Your task to perform on an android device: How do I get to the nearest Nordstrom? Image 0: 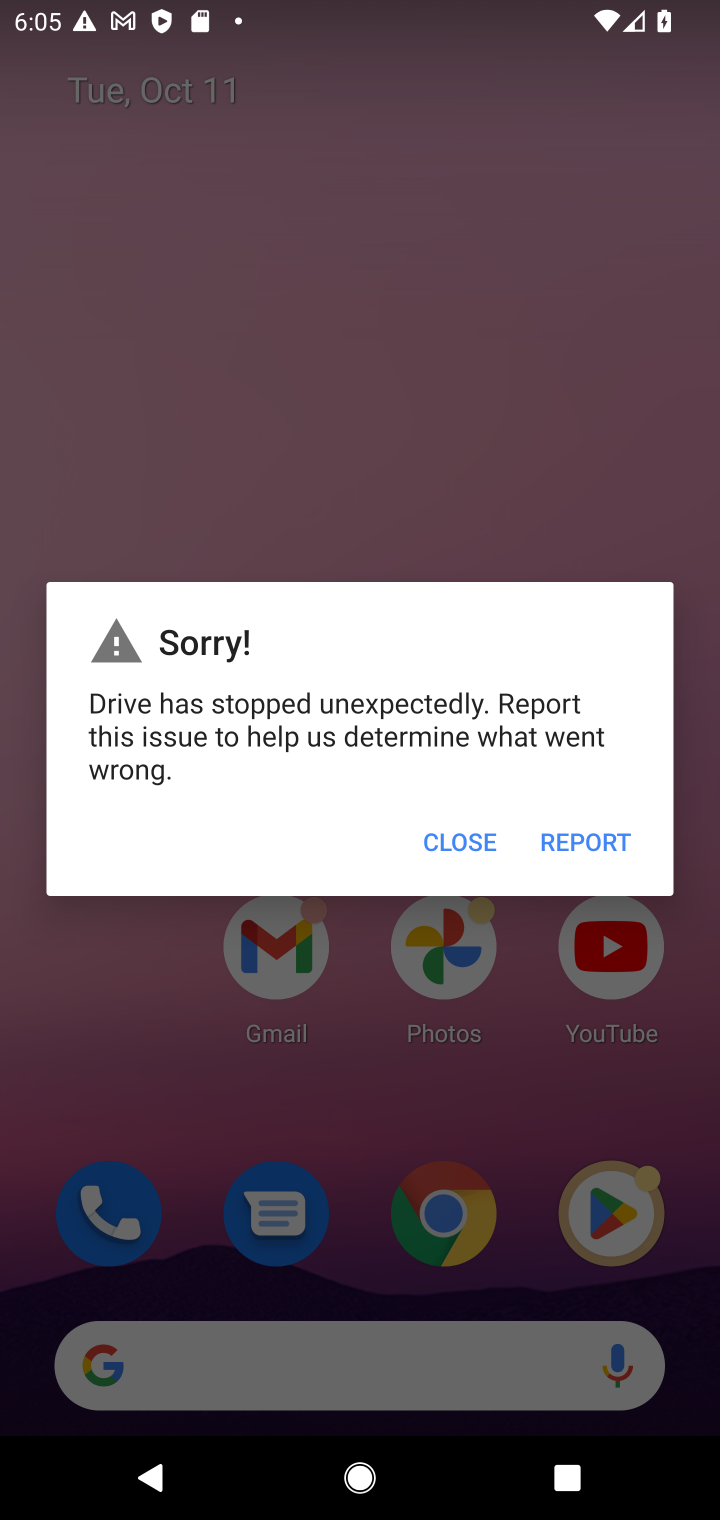
Step 0: click (217, 1378)
Your task to perform on an android device: How do I get to the nearest Nordstrom? Image 1: 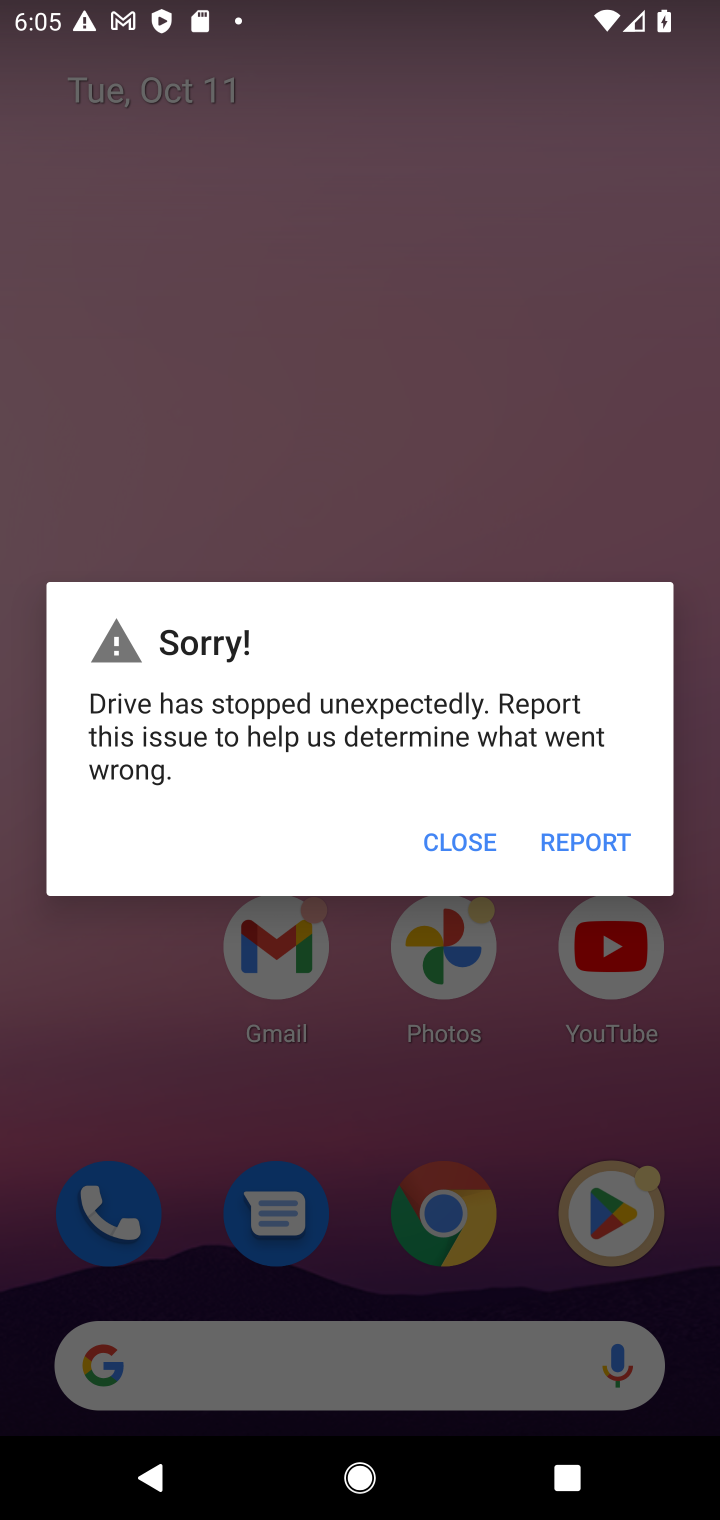
Step 1: click (485, 840)
Your task to perform on an android device: How do I get to the nearest Nordstrom? Image 2: 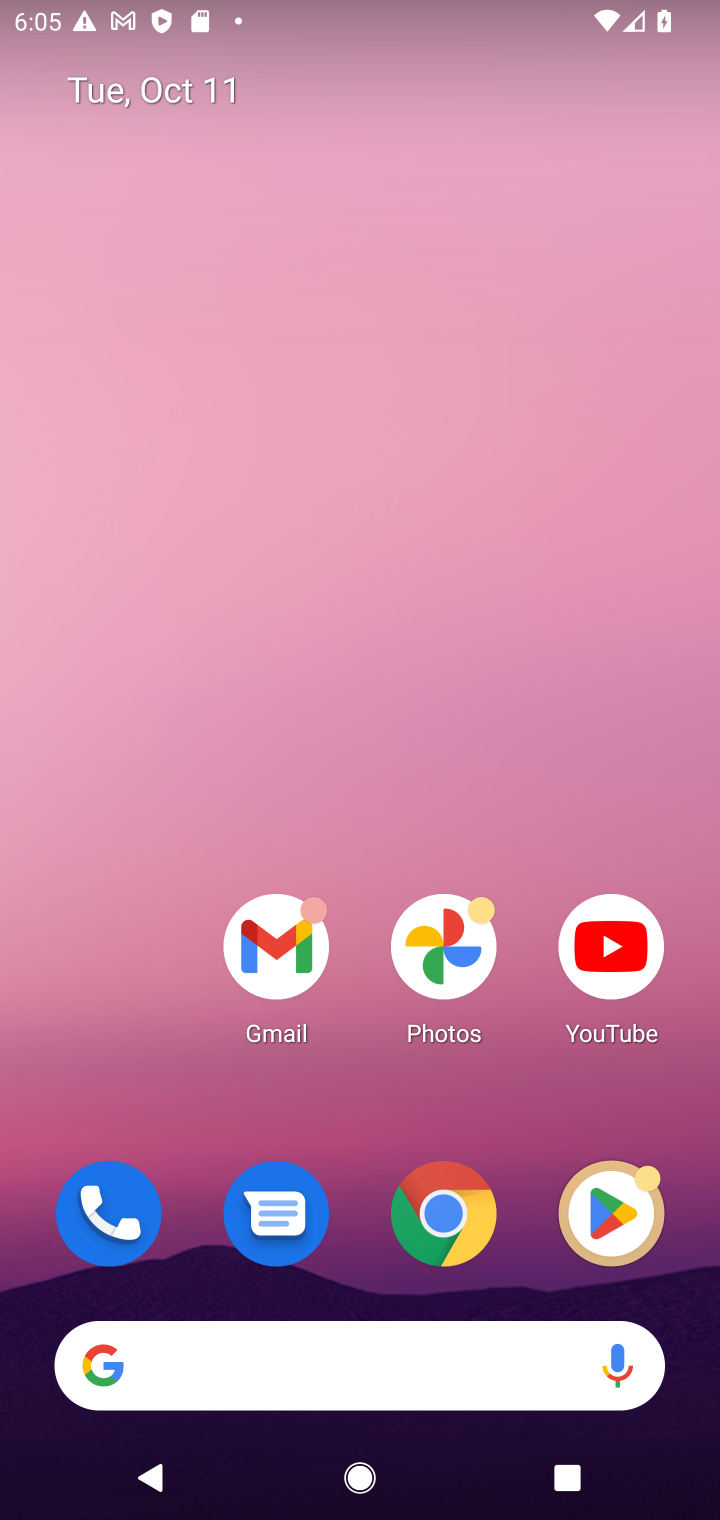
Step 2: click (317, 1381)
Your task to perform on an android device: How do I get to the nearest Nordstrom? Image 3: 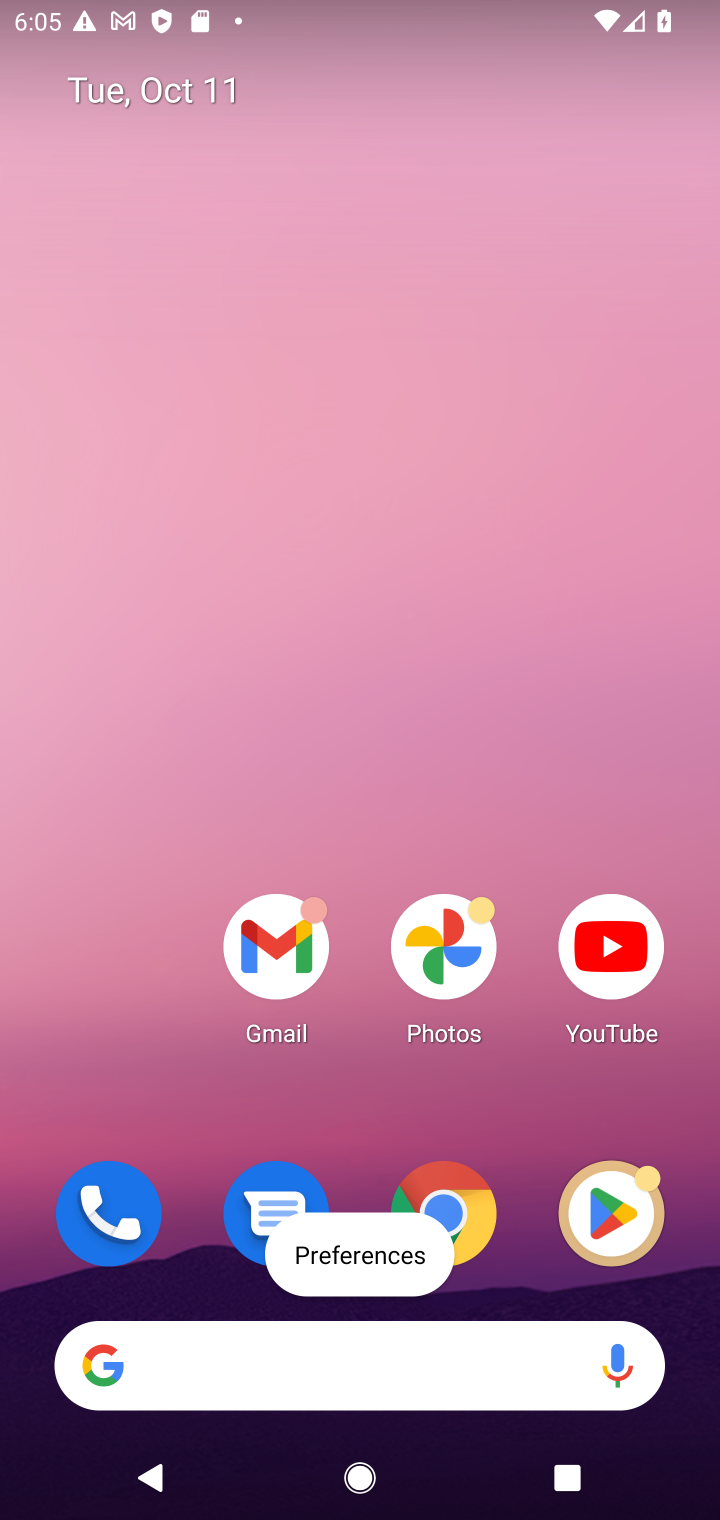
Step 3: click (157, 1368)
Your task to perform on an android device: How do I get to the nearest Nordstrom? Image 4: 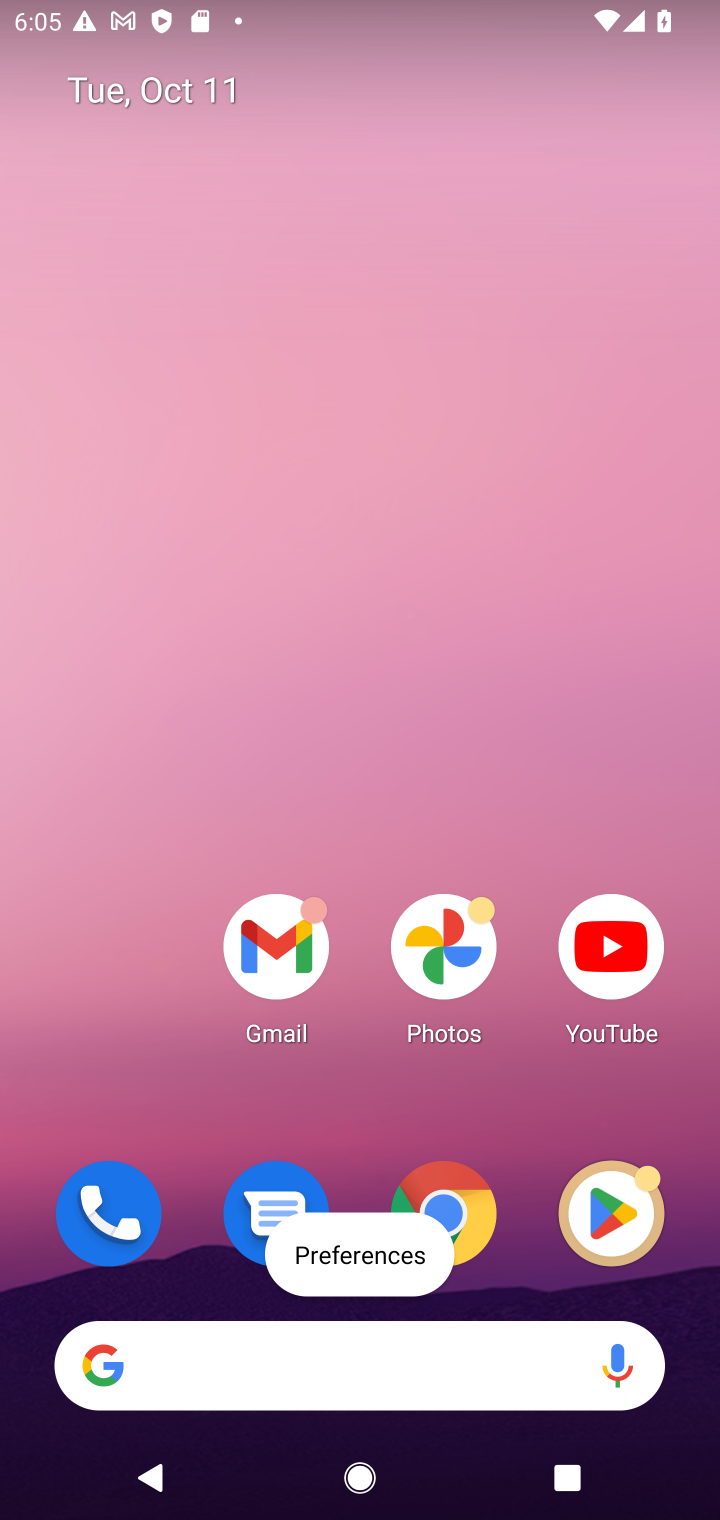
Step 4: click (156, 1359)
Your task to perform on an android device: How do I get to the nearest Nordstrom? Image 5: 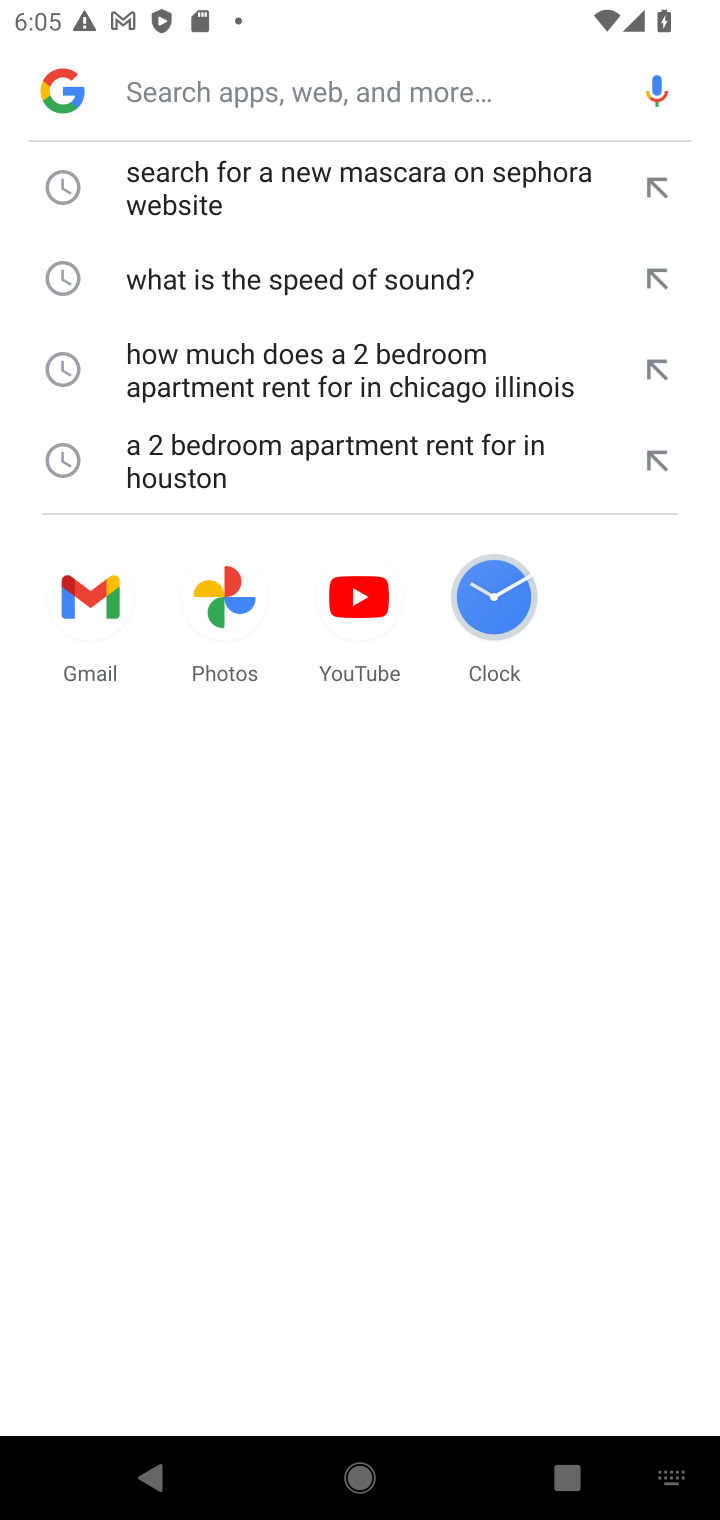
Step 5: type "How do I get to the nearest Nordstrom?"
Your task to perform on an android device: How do I get to the nearest Nordstrom? Image 6: 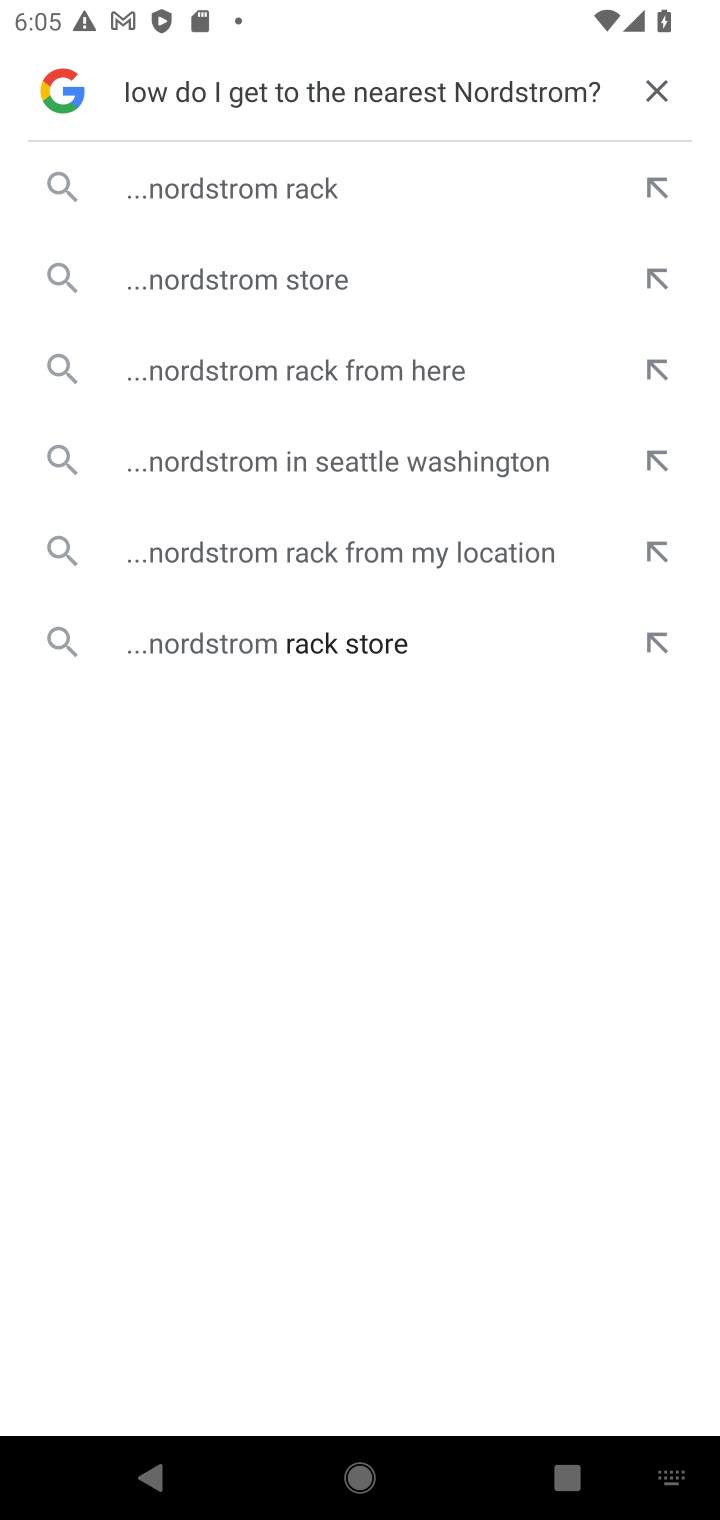
Step 6: click (249, 196)
Your task to perform on an android device: How do I get to the nearest Nordstrom? Image 7: 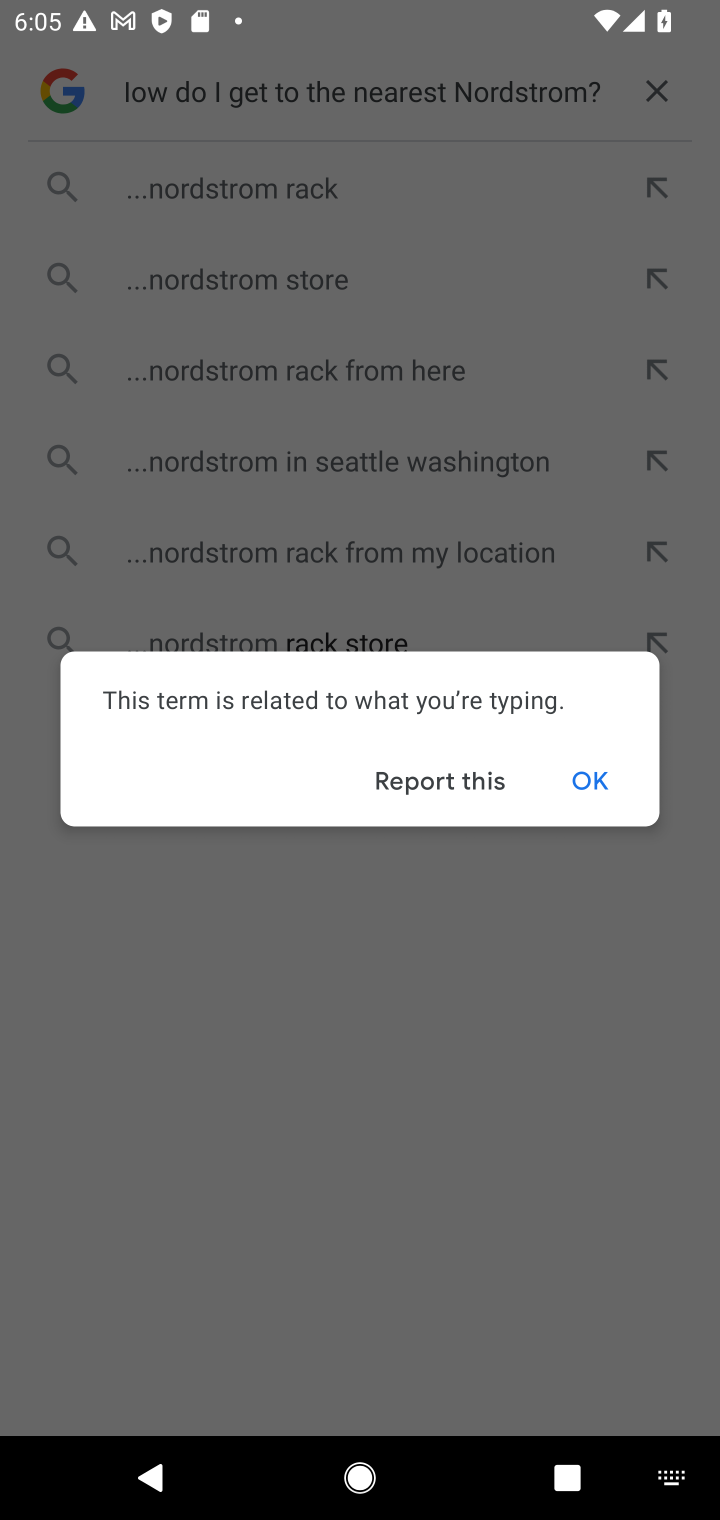
Step 7: click (457, 852)
Your task to perform on an android device: How do I get to the nearest Nordstrom? Image 8: 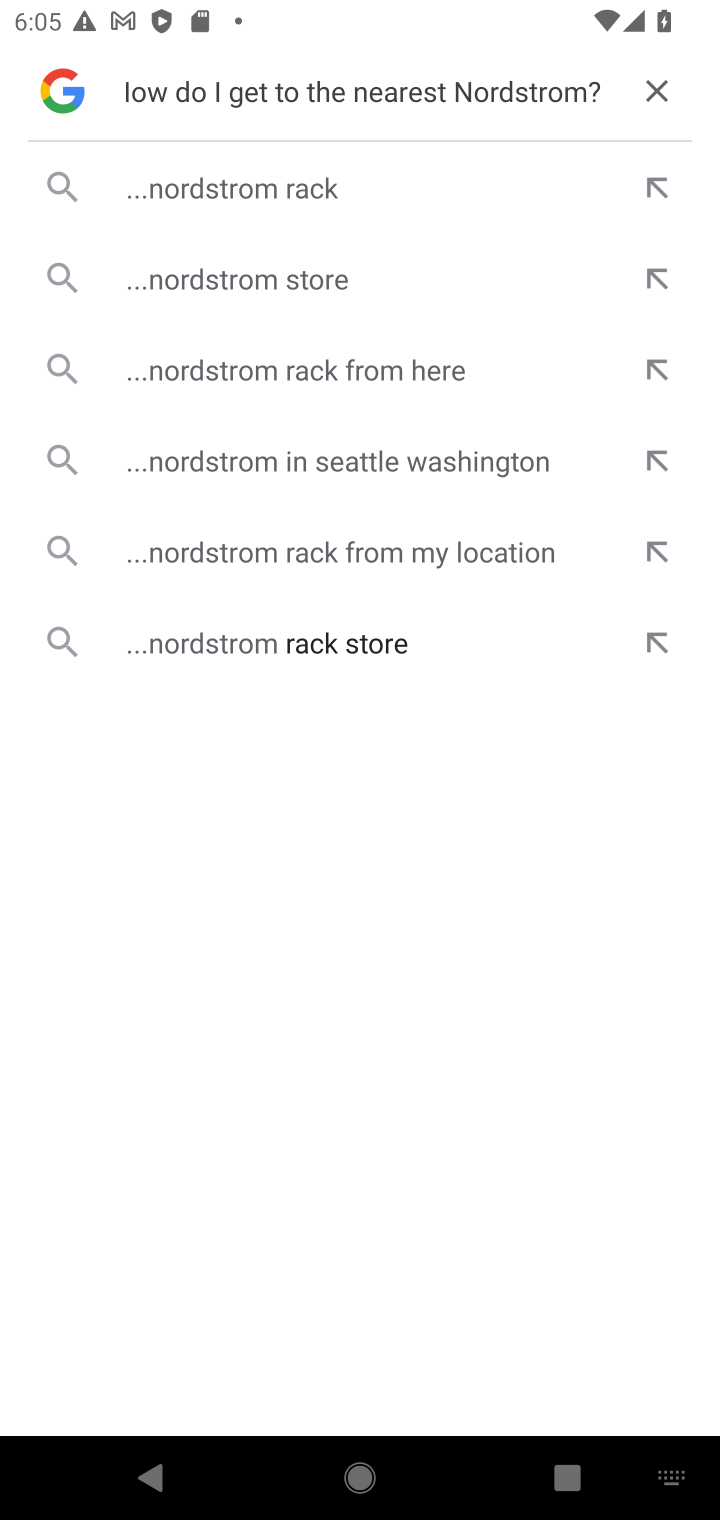
Step 8: click (621, 782)
Your task to perform on an android device: How do I get to the nearest Nordstrom? Image 9: 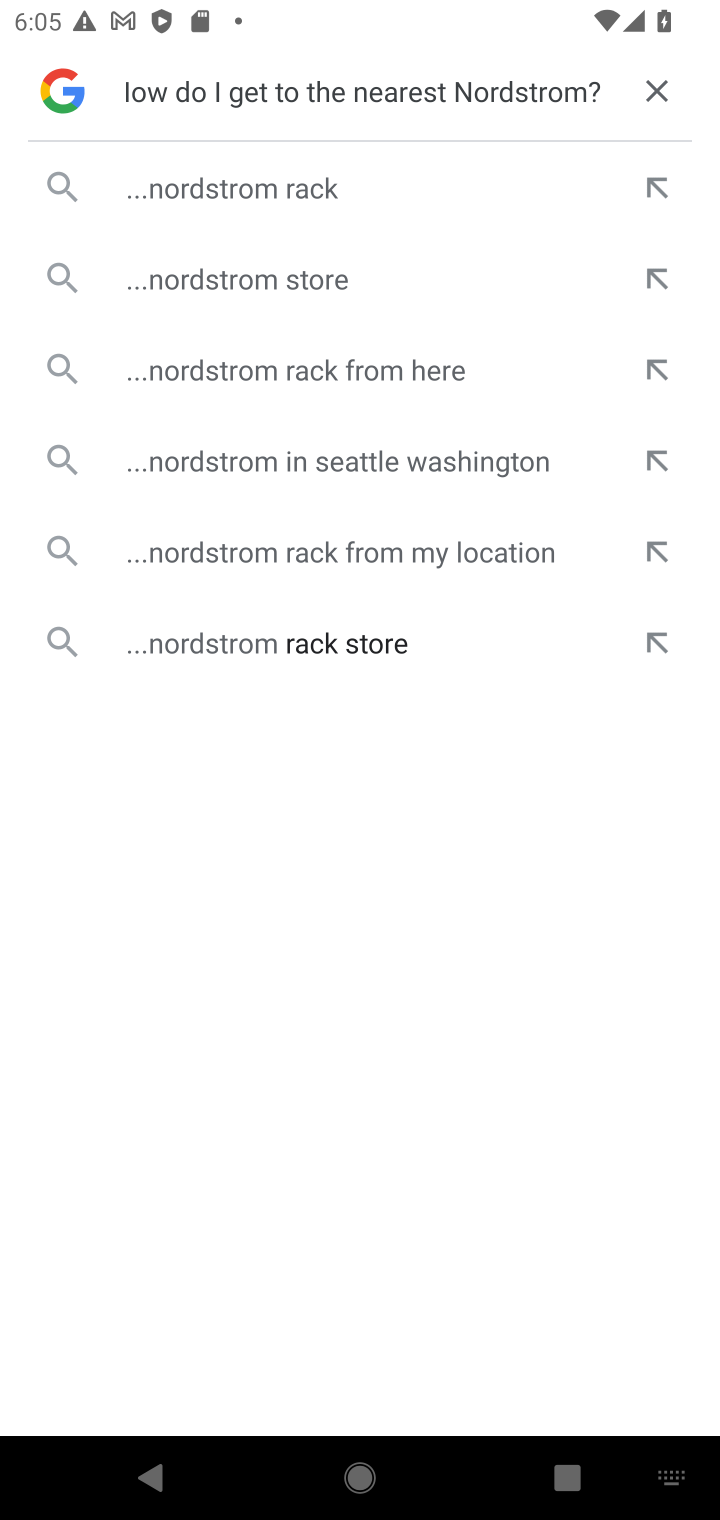
Step 9: click (339, 197)
Your task to perform on an android device: How do I get to the nearest Nordstrom? Image 10: 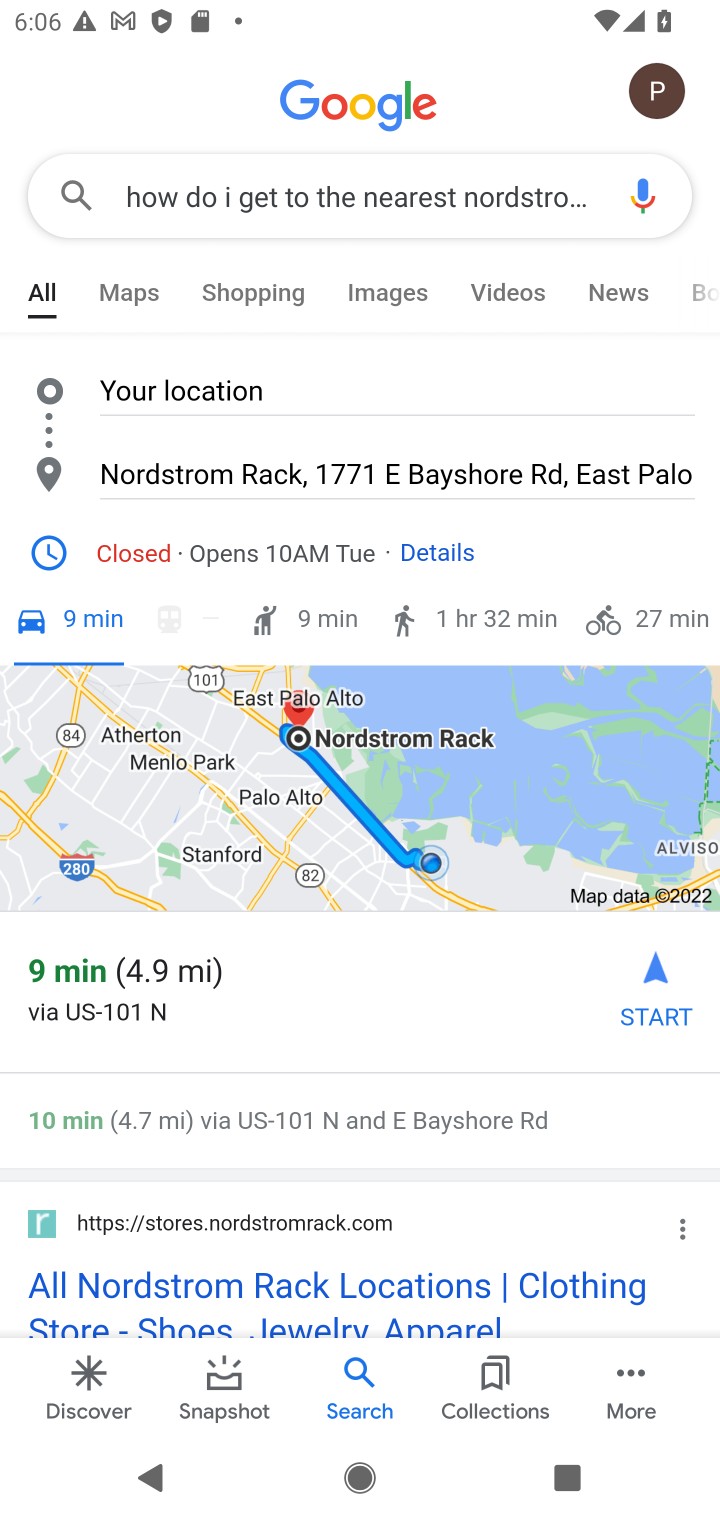
Step 10: task complete